Your task to perform on an android device: open a bookmark in the chrome app Image 0: 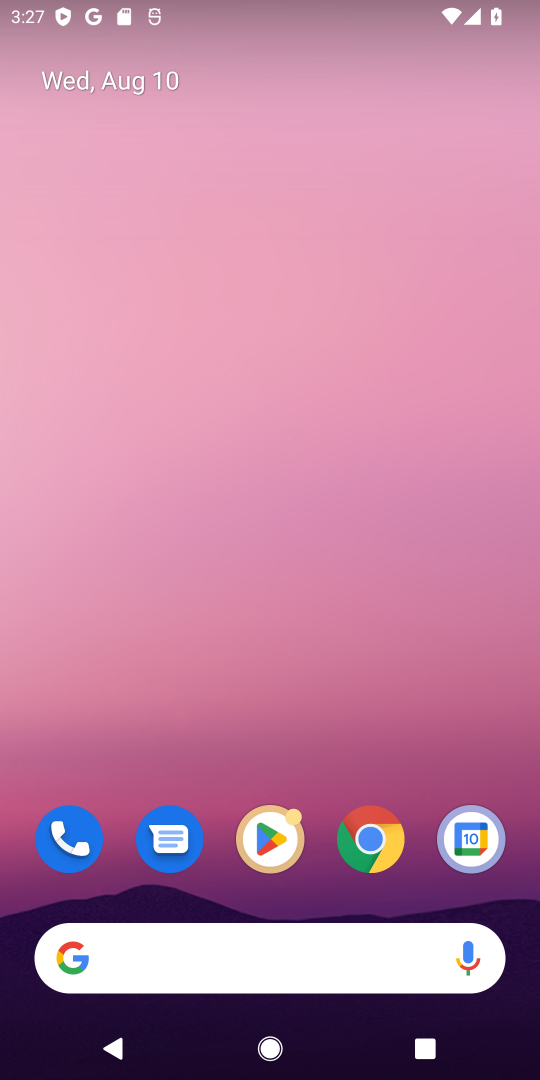
Step 0: click (381, 819)
Your task to perform on an android device: open a bookmark in the chrome app Image 1: 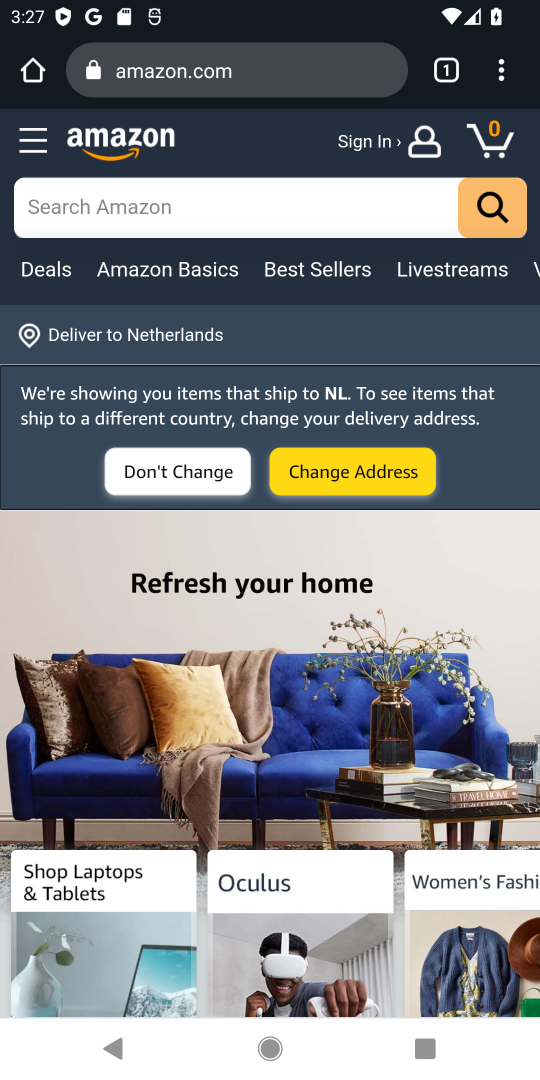
Step 1: click (502, 82)
Your task to perform on an android device: open a bookmark in the chrome app Image 2: 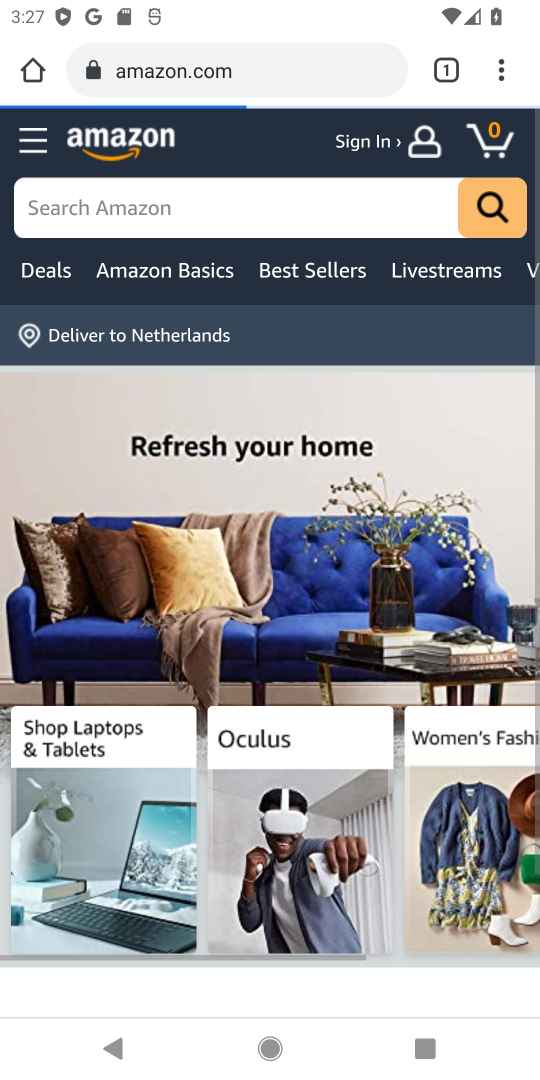
Step 2: click (502, 82)
Your task to perform on an android device: open a bookmark in the chrome app Image 3: 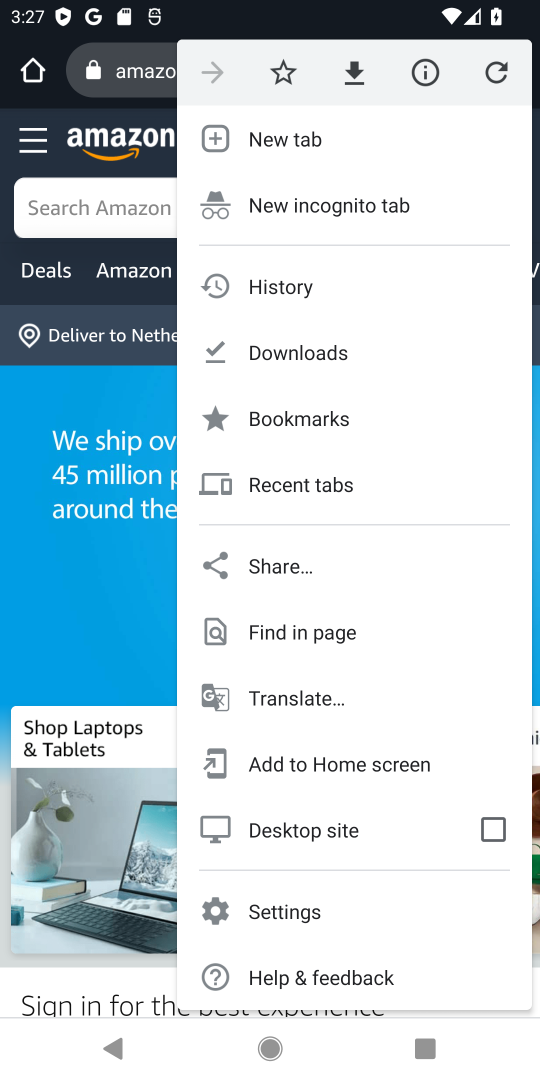
Step 3: click (278, 414)
Your task to perform on an android device: open a bookmark in the chrome app Image 4: 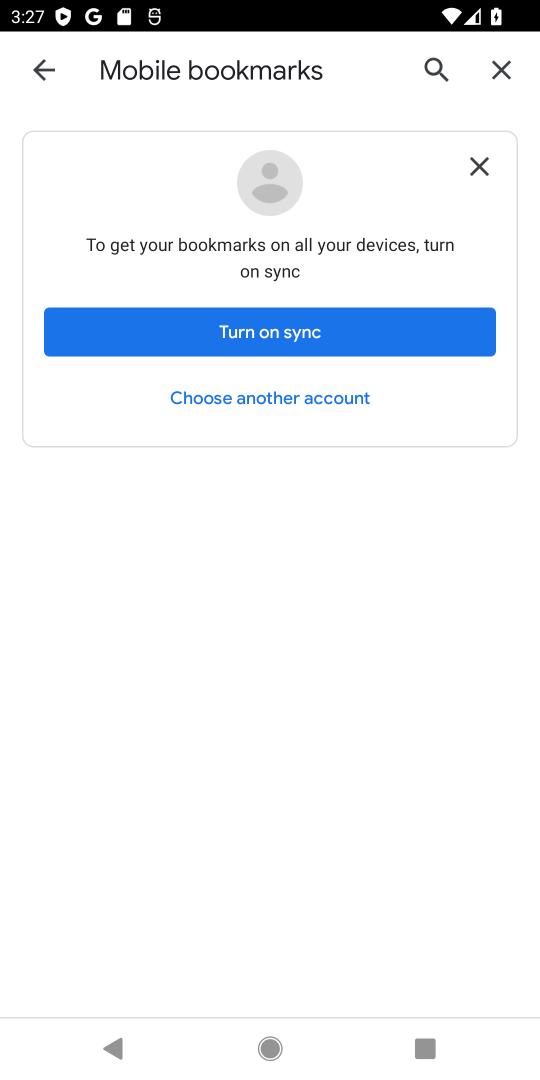
Step 4: click (291, 423)
Your task to perform on an android device: open a bookmark in the chrome app Image 5: 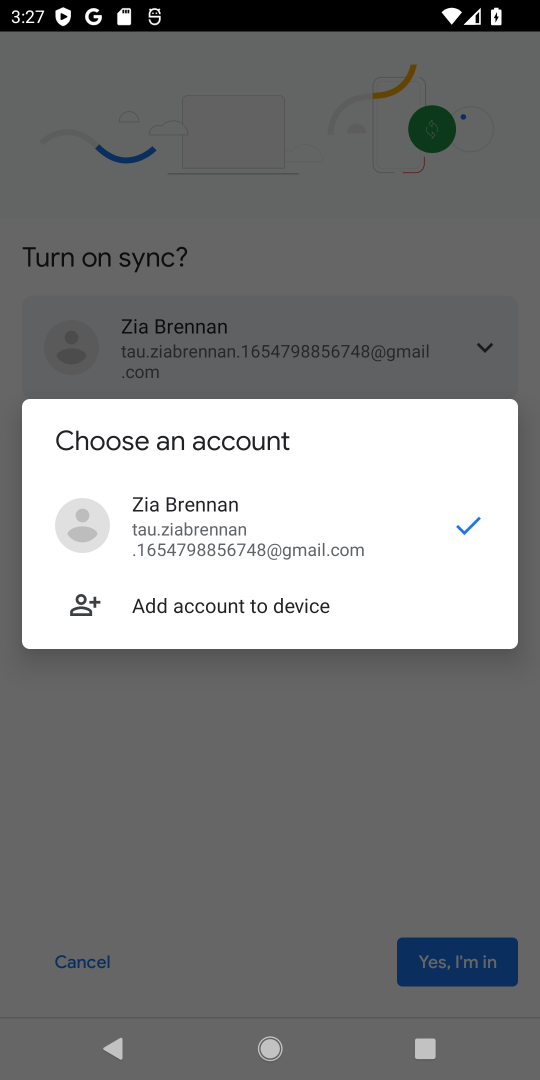
Step 5: task complete